Your task to perform on an android device: clear all cookies in the chrome app Image 0: 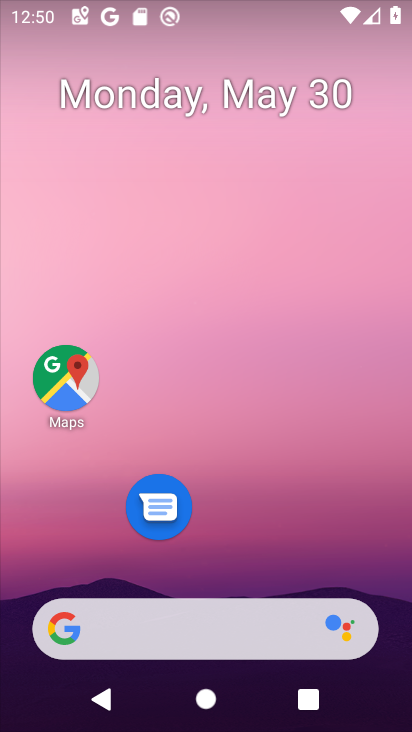
Step 0: drag from (311, 535) to (298, 229)
Your task to perform on an android device: clear all cookies in the chrome app Image 1: 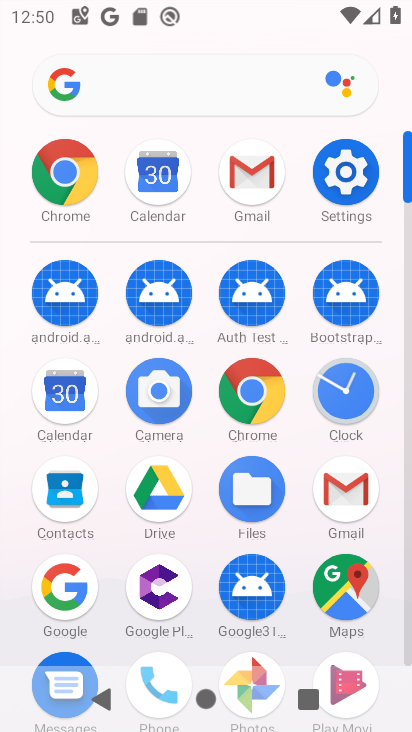
Step 1: click (257, 394)
Your task to perform on an android device: clear all cookies in the chrome app Image 2: 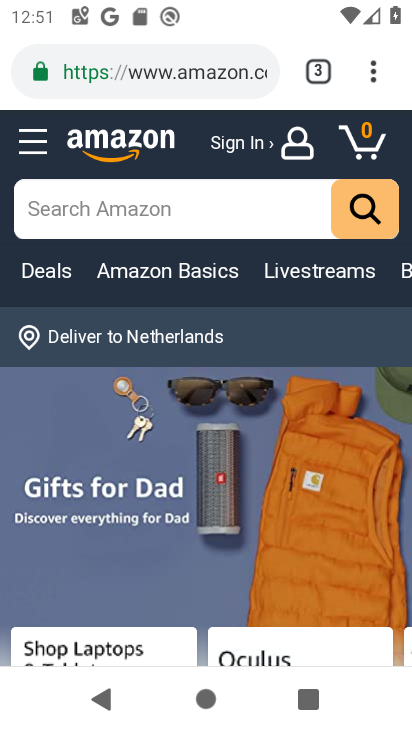
Step 2: drag from (368, 69) to (126, 511)
Your task to perform on an android device: clear all cookies in the chrome app Image 3: 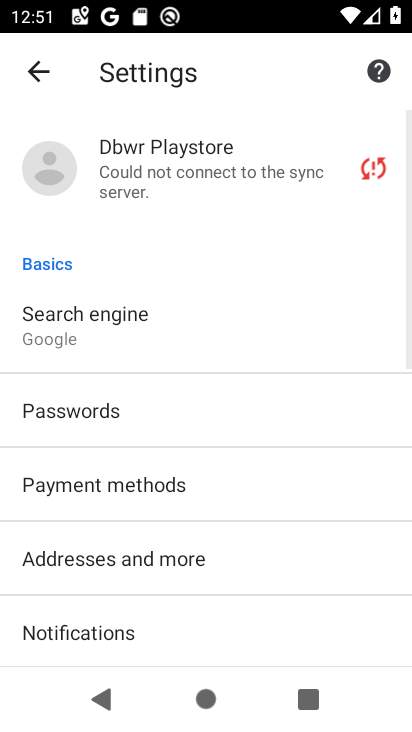
Step 3: drag from (262, 596) to (273, 267)
Your task to perform on an android device: clear all cookies in the chrome app Image 4: 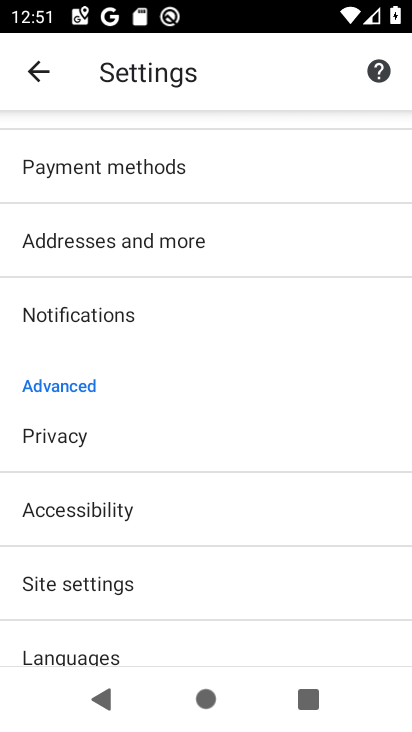
Step 4: click (68, 579)
Your task to perform on an android device: clear all cookies in the chrome app Image 5: 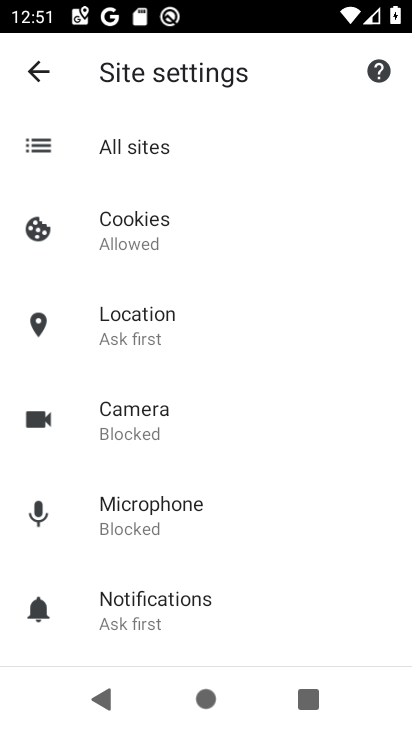
Step 5: click (31, 73)
Your task to perform on an android device: clear all cookies in the chrome app Image 6: 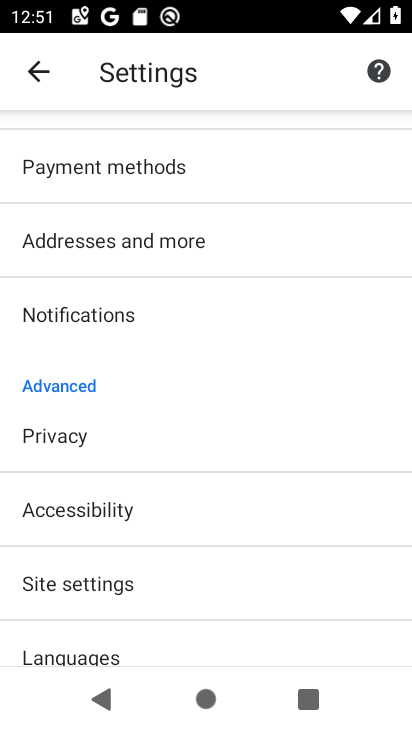
Step 6: click (83, 437)
Your task to perform on an android device: clear all cookies in the chrome app Image 7: 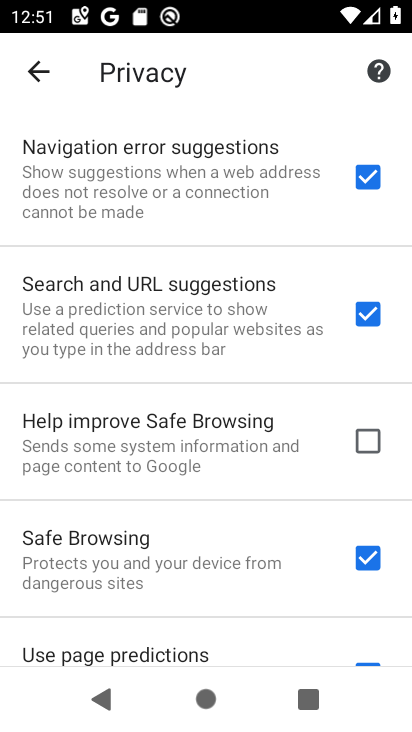
Step 7: drag from (278, 570) to (273, 115)
Your task to perform on an android device: clear all cookies in the chrome app Image 8: 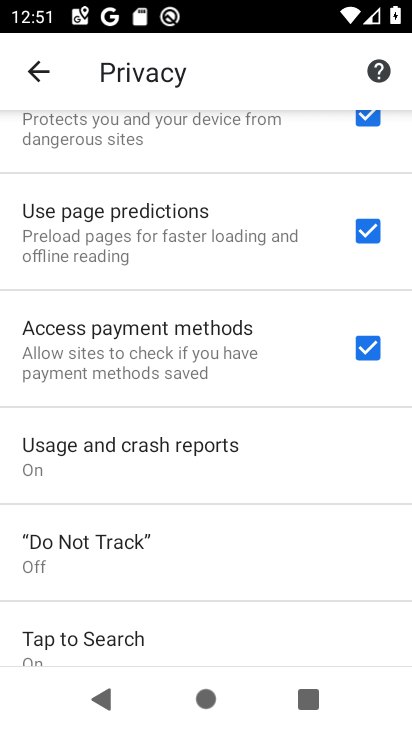
Step 8: drag from (196, 595) to (231, 209)
Your task to perform on an android device: clear all cookies in the chrome app Image 9: 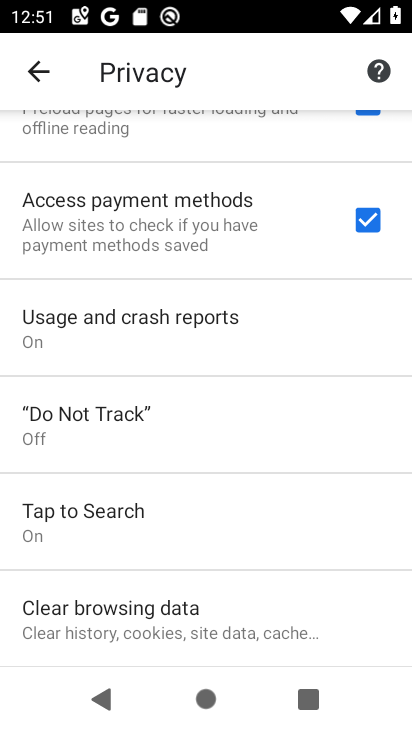
Step 9: click (120, 620)
Your task to perform on an android device: clear all cookies in the chrome app Image 10: 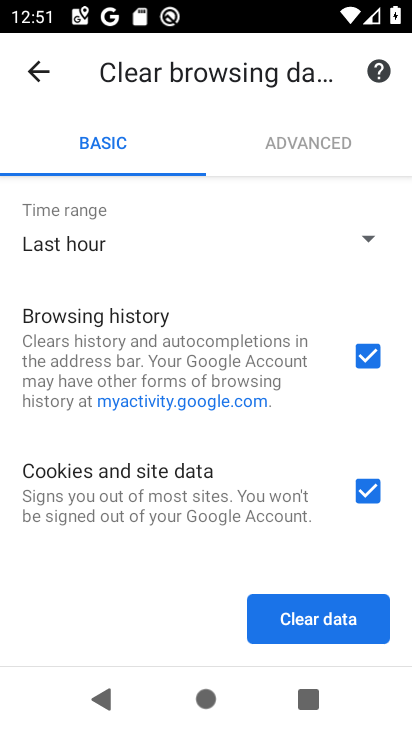
Step 10: click (312, 617)
Your task to perform on an android device: clear all cookies in the chrome app Image 11: 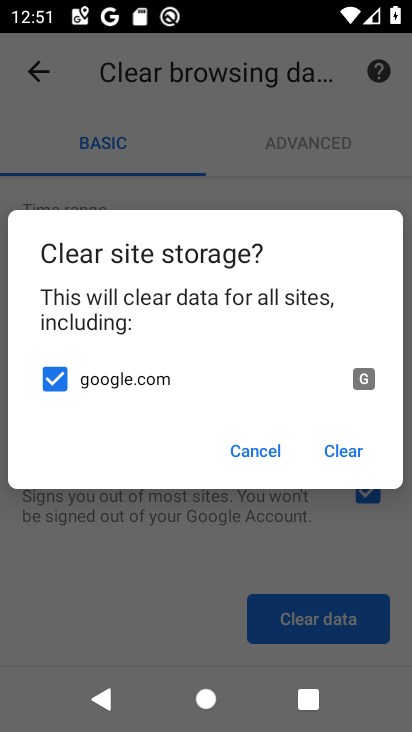
Step 11: click (331, 440)
Your task to perform on an android device: clear all cookies in the chrome app Image 12: 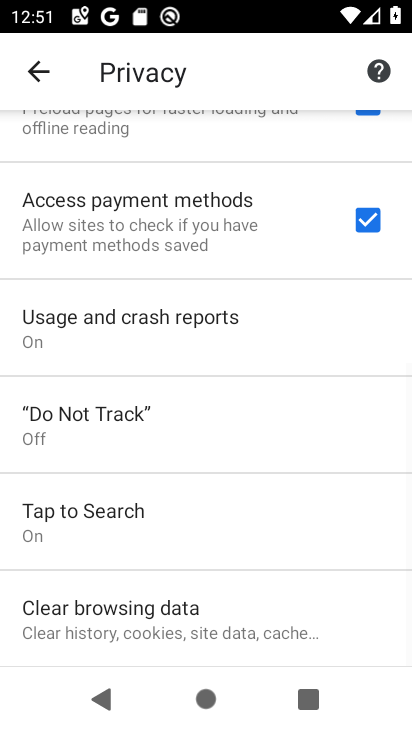
Step 12: task complete